Your task to perform on an android device: empty trash in google photos Image 0: 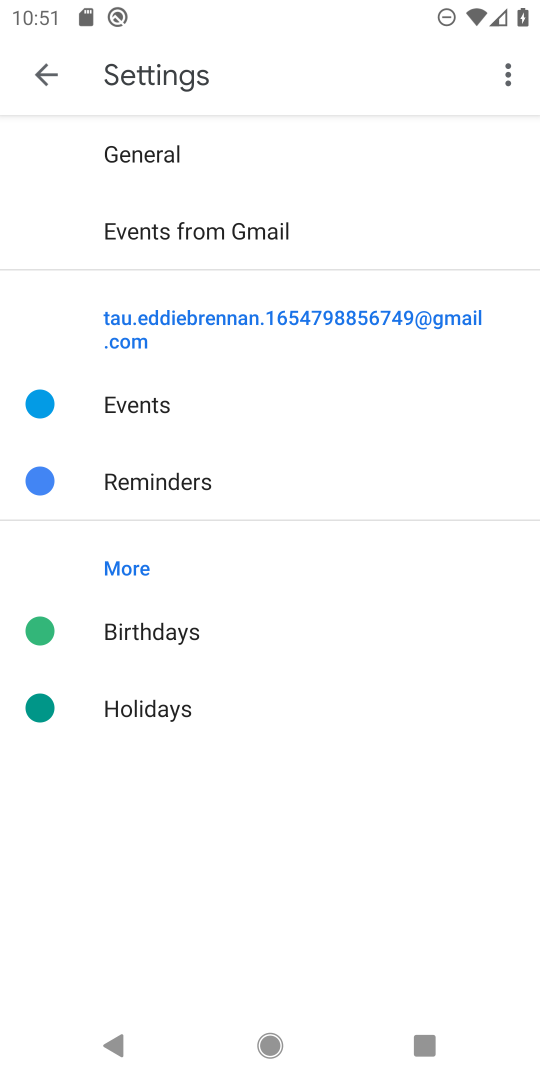
Step 0: press home button
Your task to perform on an android device: empty trash in google photos Image 1: 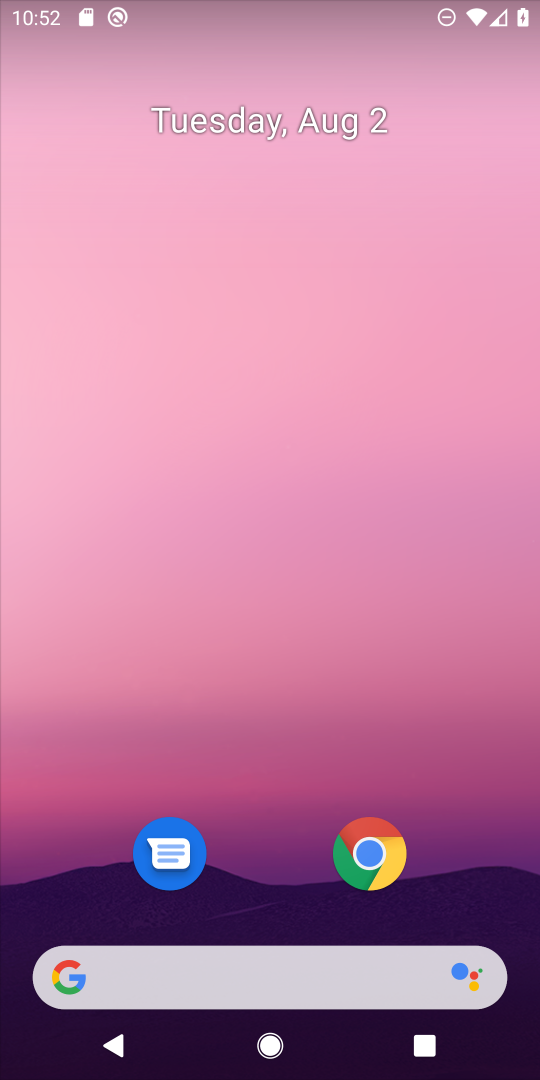
Step 1: drag from (502, 849) to (413, 216)
Your task to perform on an android device: empty trash in google photos Image 2: 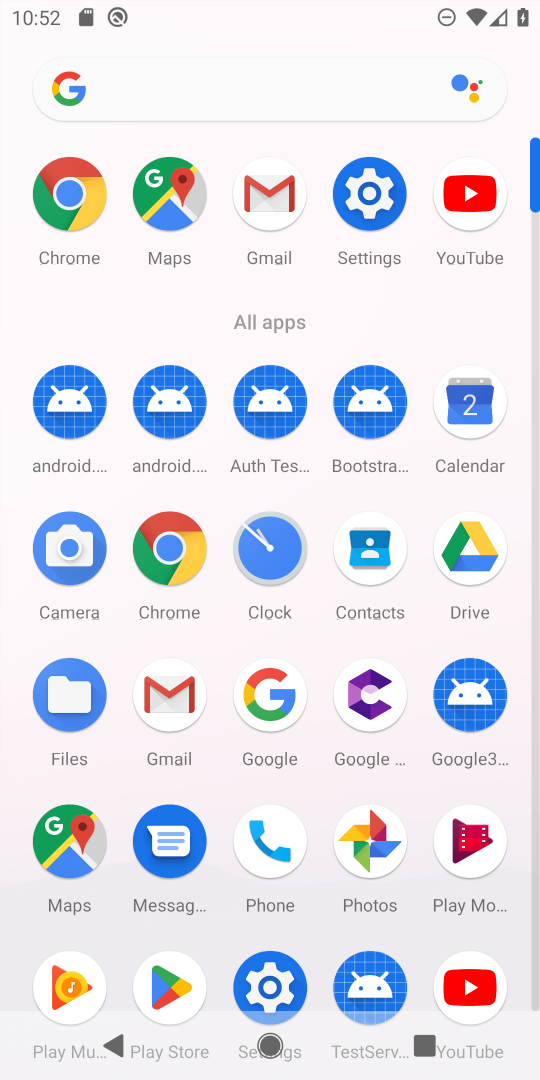
Step 2: click (371, 843)
Your task to perform on an android device: empty trash in google photos Image 3: 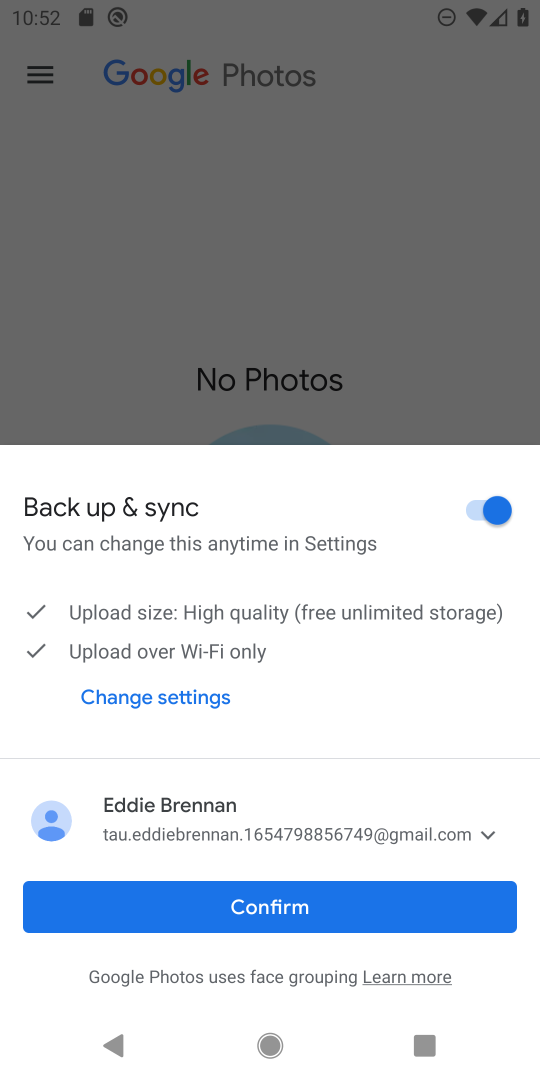
Step 3: click (392, 913)
Your task to perform on an android device: empty trash in google photos Image 4: 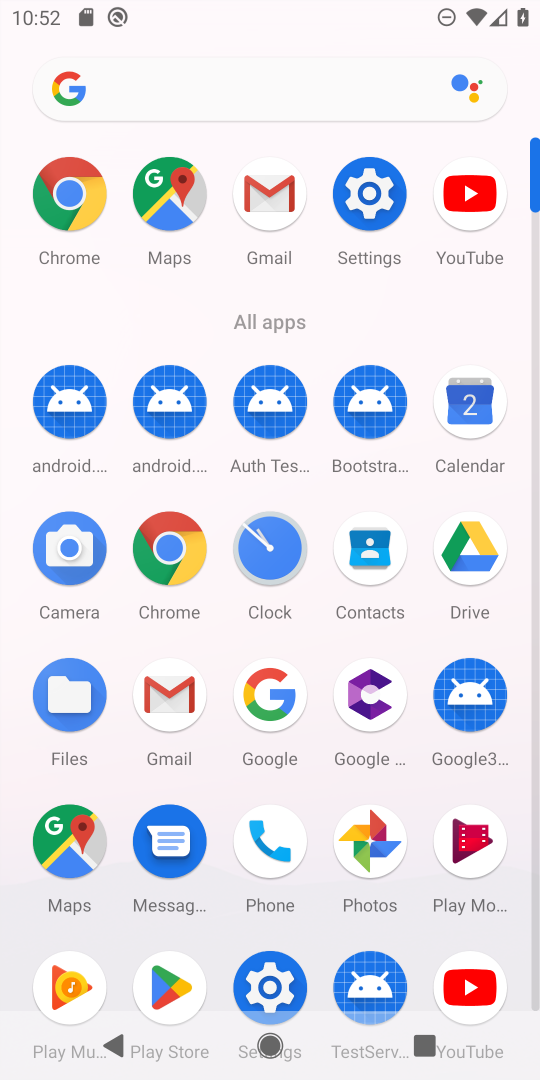
Step 4: click (360, 846)
Your task to perform on an android device: empty trash in google photos Image 5: 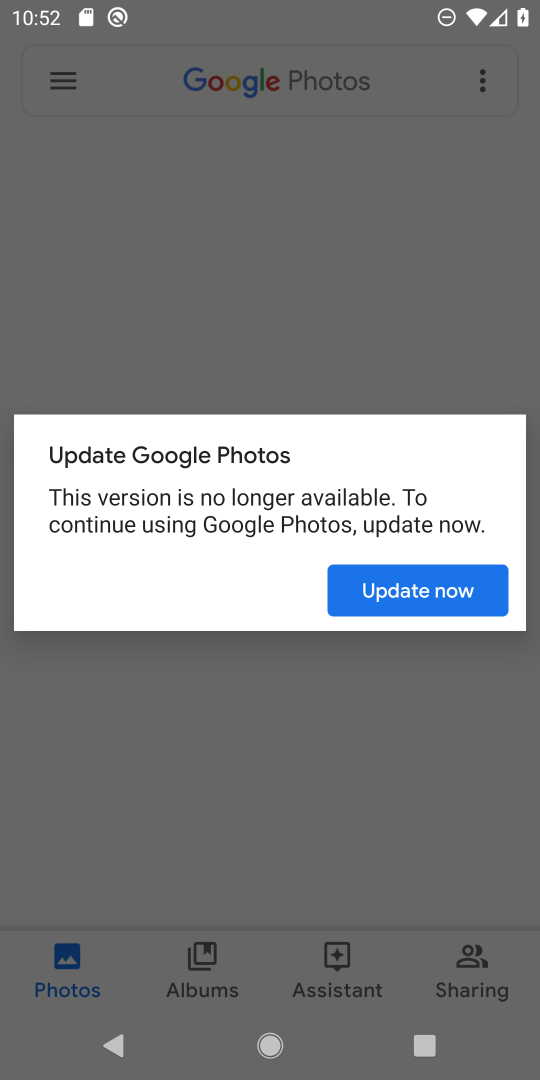
Step 5: click (387, 581)
Your task to perform on an android device: empty trash in google photos Image 6: 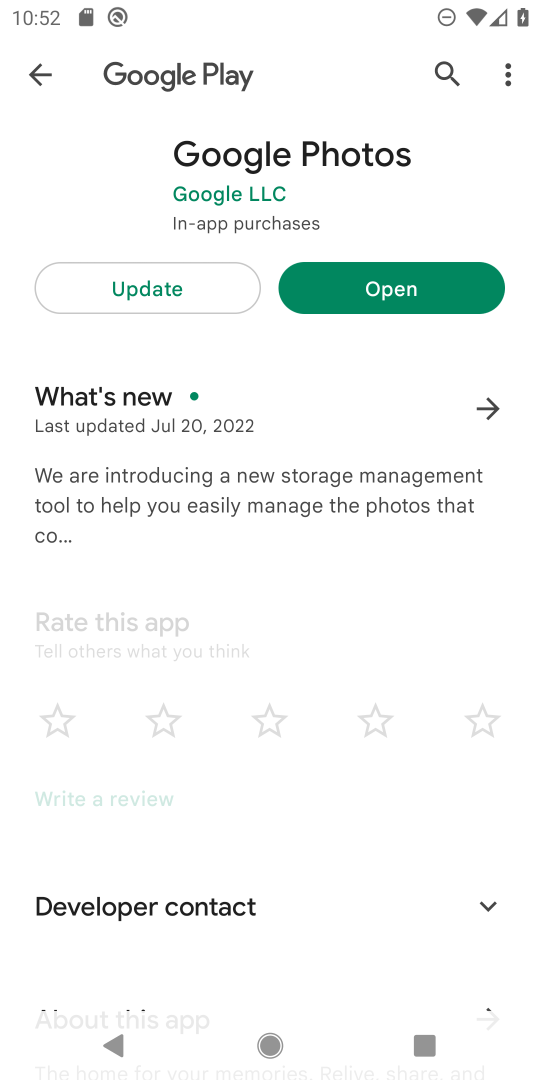
Step 6: click (395, 303)
Your task to perform on an android device: empty trash in google photos Image 7: 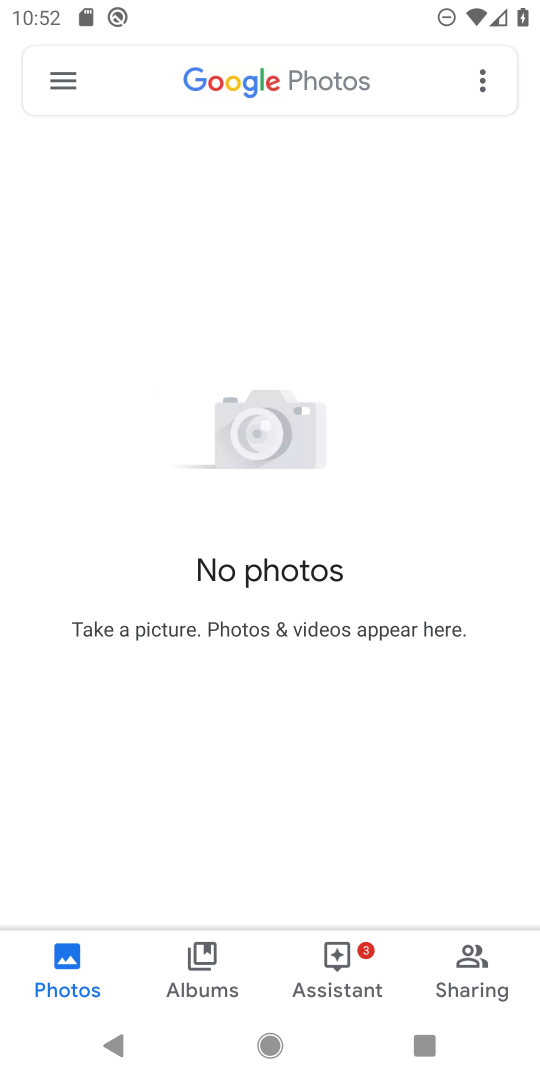
Step 7: click (57, 84)
Your task to perform on an android device: empty trash in google photos Image 8: 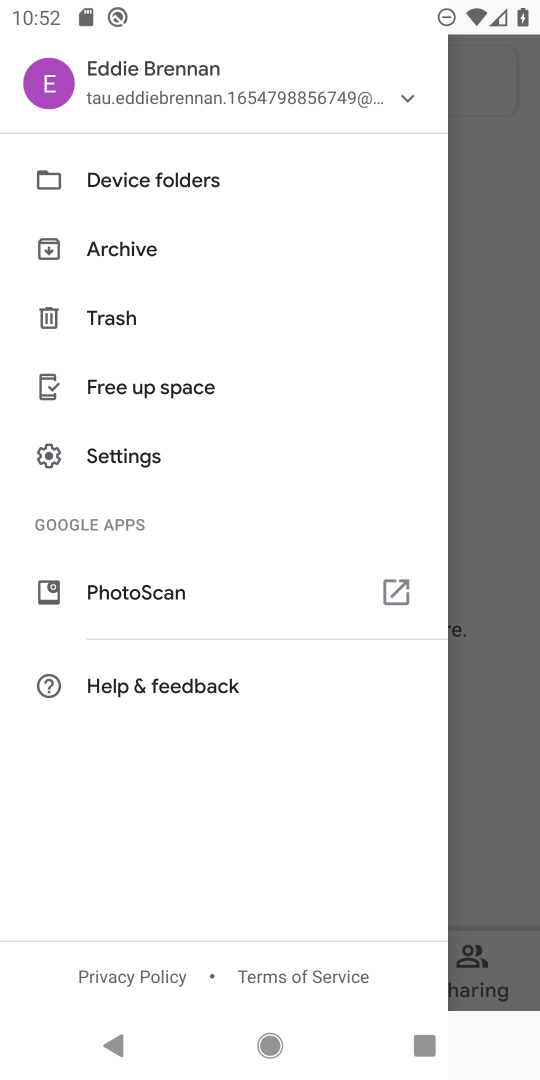
Step 8: click (99, 315)
Your task to perform on an android device: empty trash in google photos Image 9: 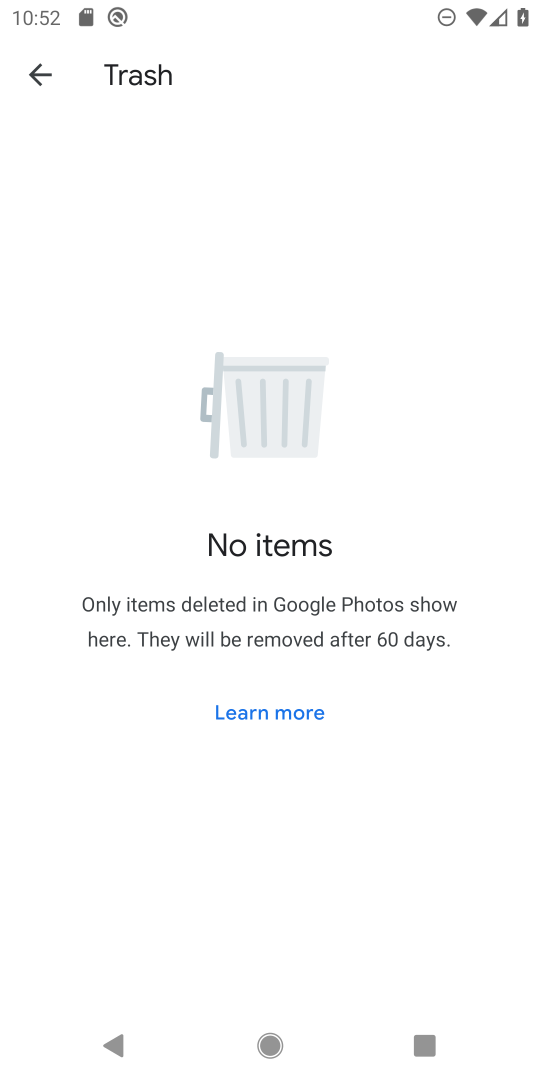
Step 9: task complete